Your task to perform on an android device: choose inbox layout in the gmail app Image 0: 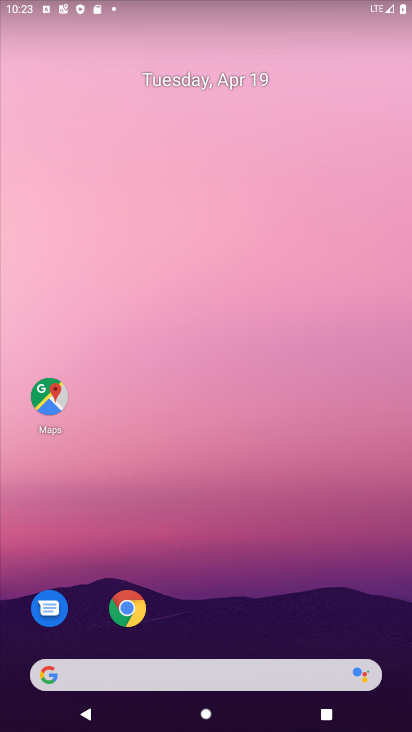
Step 0: drag from (356, 623) to (307, 119)
Your task to perform on an android device: choose inbox layout in the gmail app Image 1: 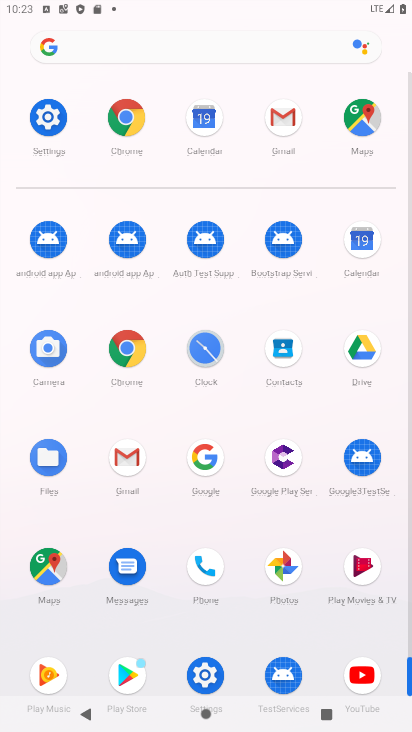
Step 1: click (123, 455)
Your task to perform on an android device: choose inbox layout in the gmail app Image 2: 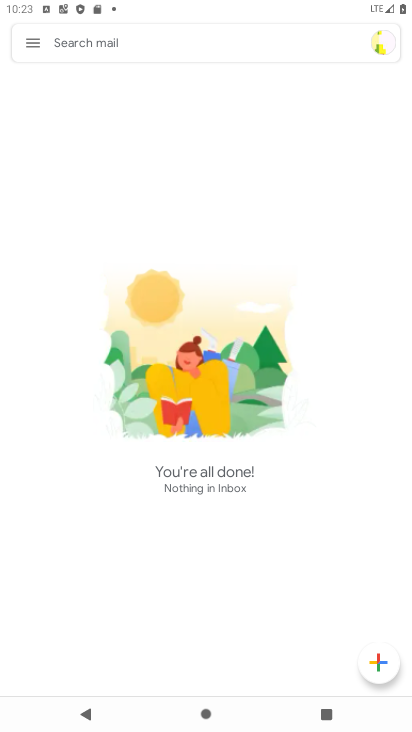
Step 2: click (31, 42)
Your task to perform on an android device: choose inbox layout in the gmail app Image 3: 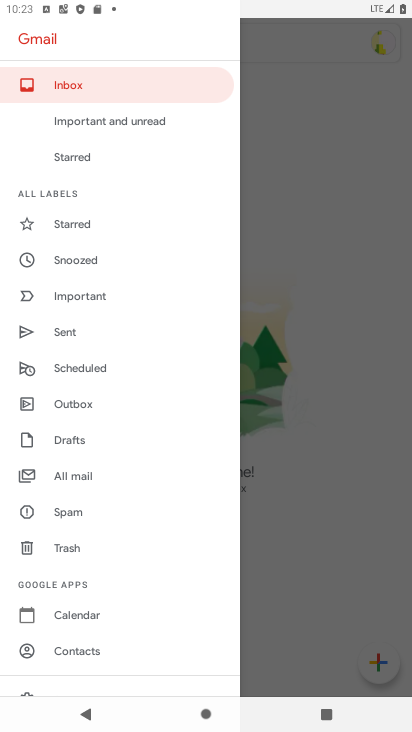
Step 3: drag from (137, 569) to (153, 227)
Your task to perform on an android device: choose inbox layout in the gmail app Image 4: 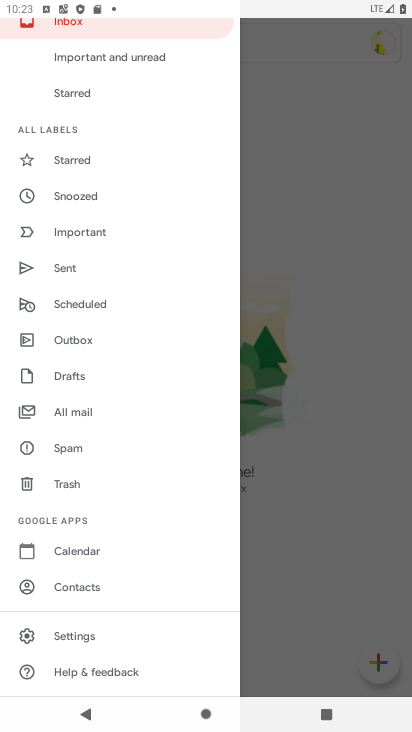
Step 4: click (62, 636)
Your task to perform on an android device: choose inbox layout in the gmail app Image 5: 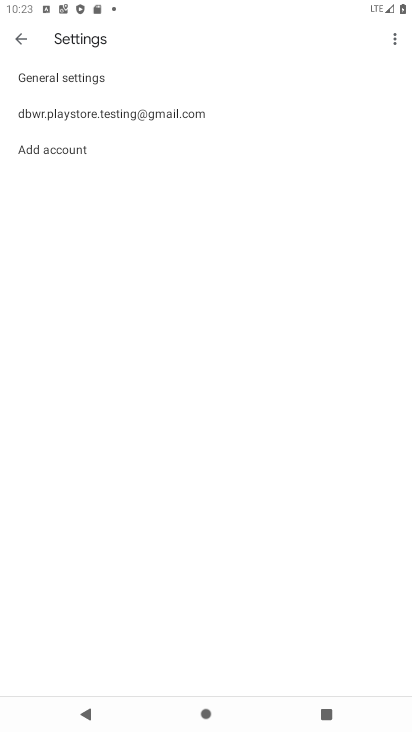
Step 5: click (109, 112)
Your task to perform on an android device: choose inbox layout in the gmail app Image 6: 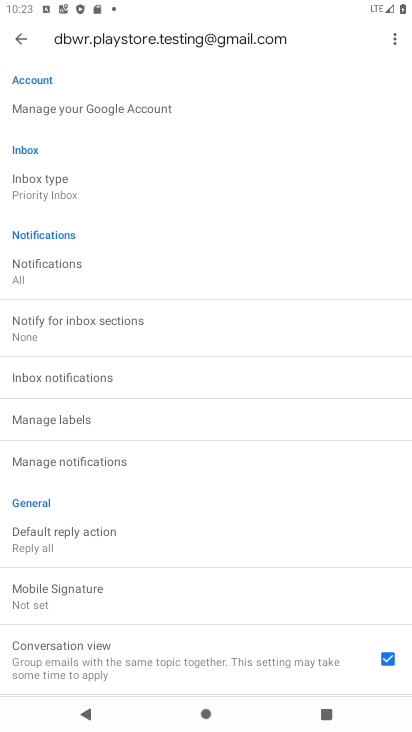
Step 6: click (49, 193)
Your task to perform on an android device: choose inbox layout in the gmail app Image 7: 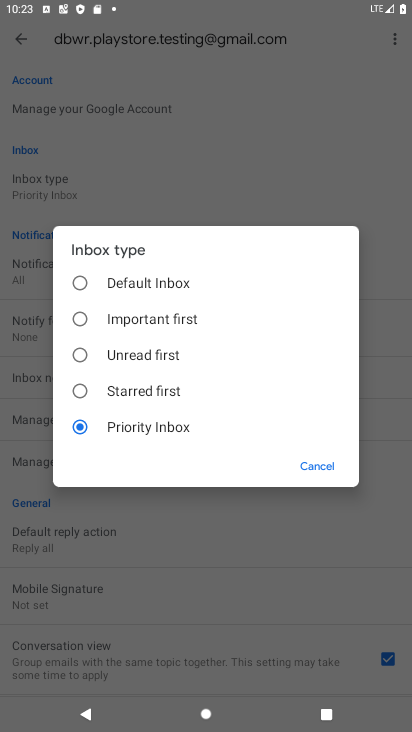
Step 7: click (80, 280)
Your task to perform on an android device: choose inbox layout in the gmail app Image 8: 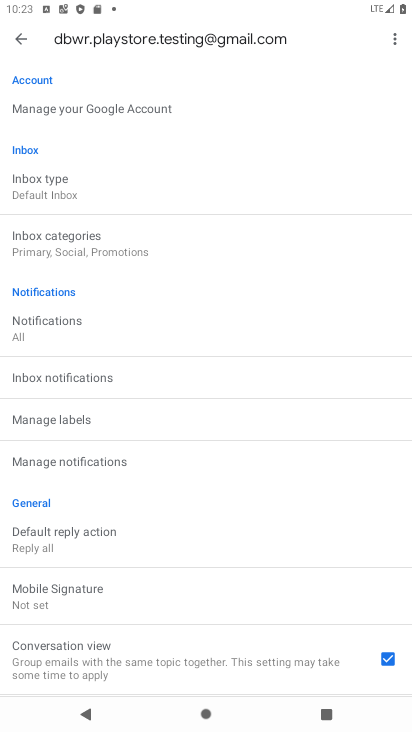
Step 8: task complete